Your task to perform on an android device: When is my next appointment? Image 0: 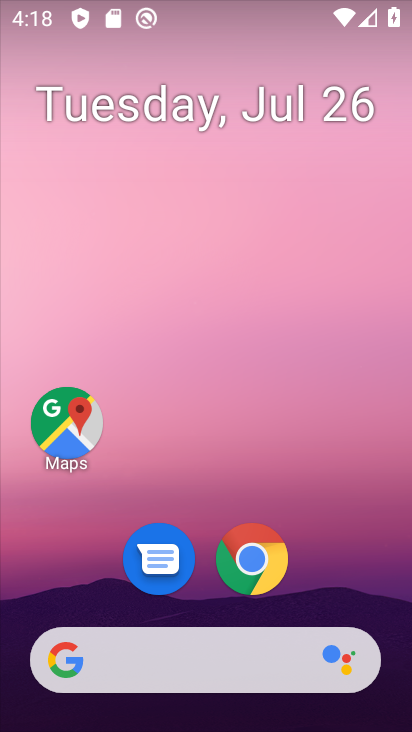
Step 0: drag from (205, 588) to (264, 29)
Your task to perform on an android device: When is my next appointment? Image 1: 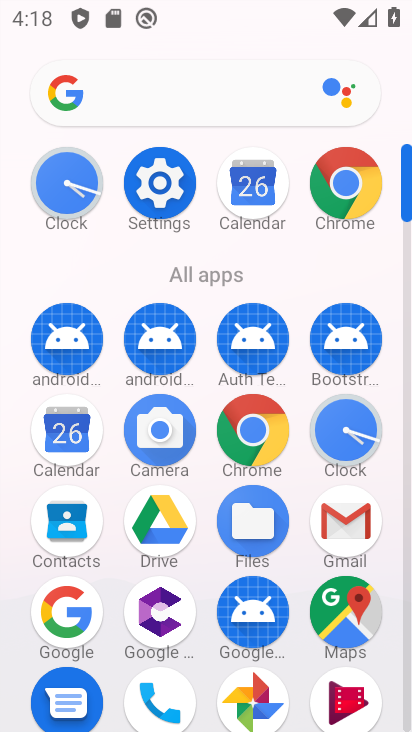
Step 1: click (57, 438)
Your task to perform on an android device: When is my next appointment? Image 2: 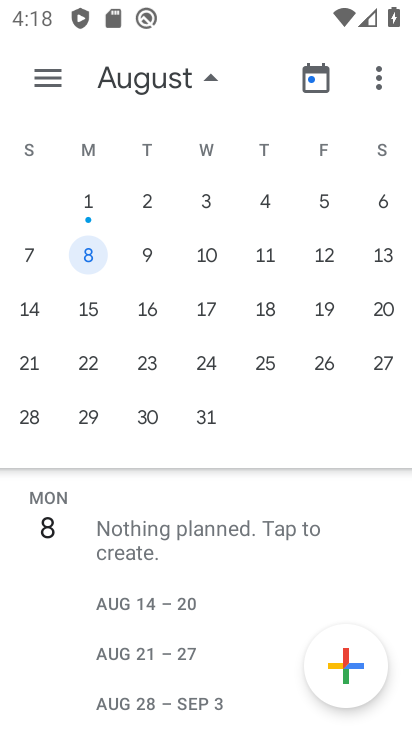
Step 2: click (26, 317)
Your task to perform on an android device: When is my next appointment? Image 3: 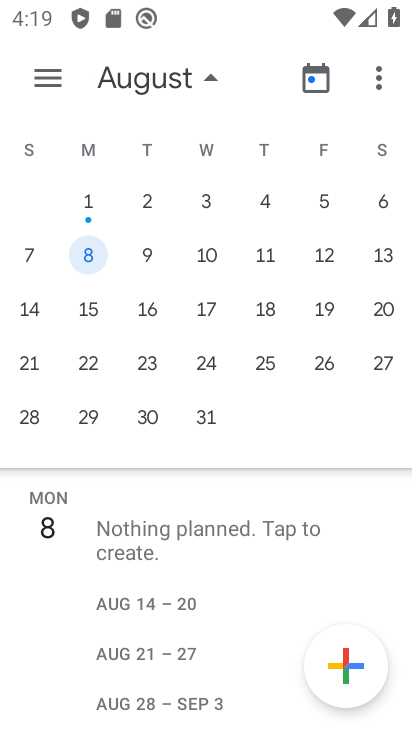
Step 3: drag from (88, 364) to (410, 382)
Your task to perform on an android device: When is my next appointment? Image 4: 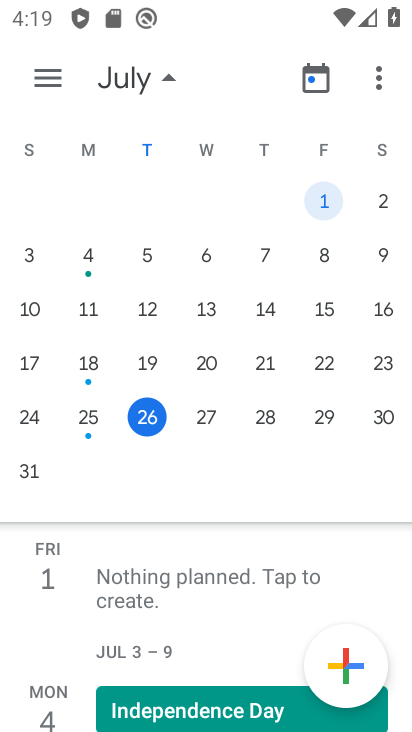
Step 4: click (156, 422)
Your task to perform on an android device: When is my next appointment? Image 5: 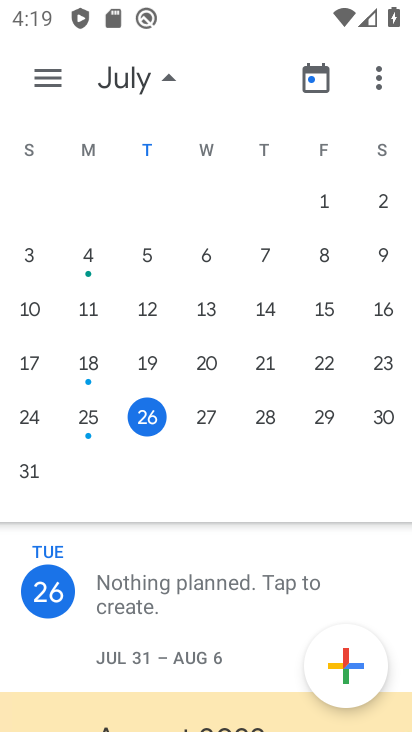
Step 5: task complete